Your task to perform on an android device: What's the weather going to be this weekend? Image 0: 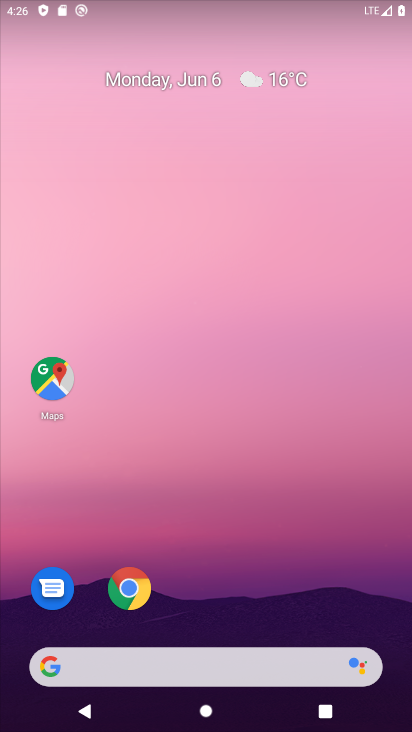
Step 0: click (259, 165)
Your task to perform on an android device: What's the weather going to be this weekend? Image 1: 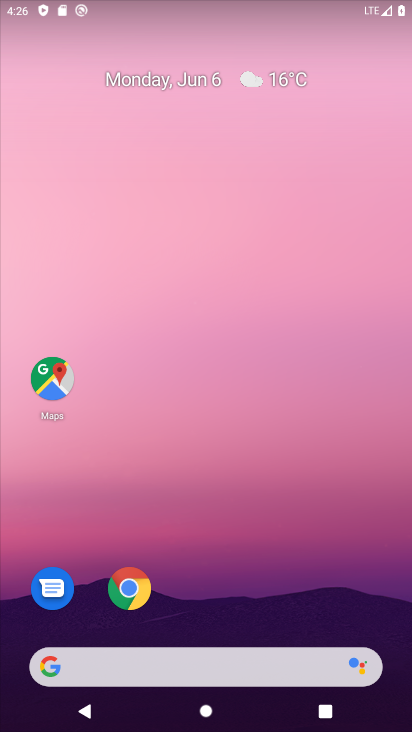
Step 1: drag from (239, 675) to (201, 132)
Your task to perform on an android device: What's the weather going to be this weekend? Image 2: 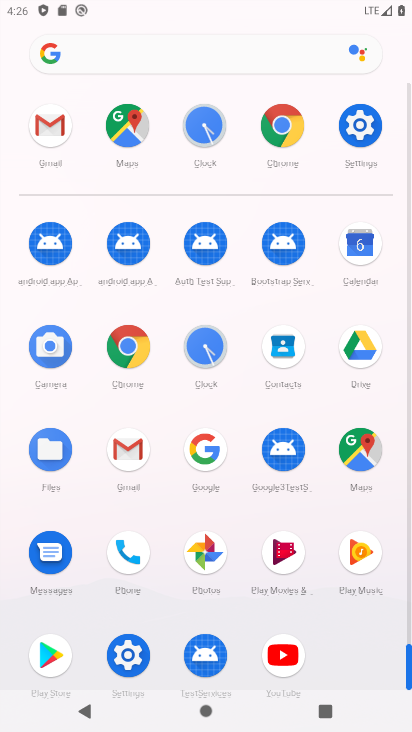
Step 2: press back button
Your task to perform on an android device: What's the weather going to be this weekend? Image 3: 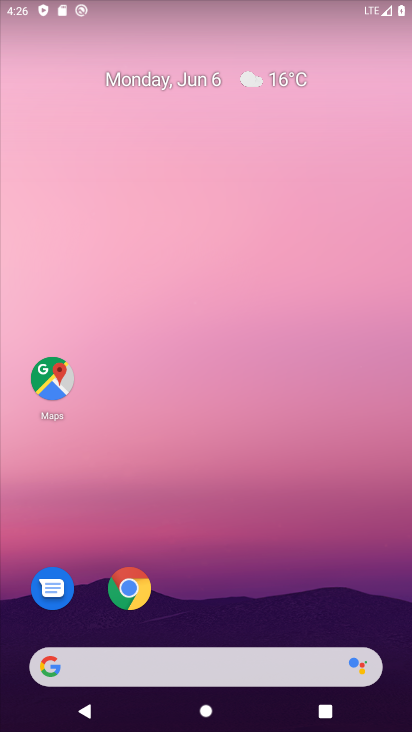
Step 3: drag from (133, 299) to (390, 489)
Your task to perform on an android device: What's the weather going to be this weekend? Image 4: 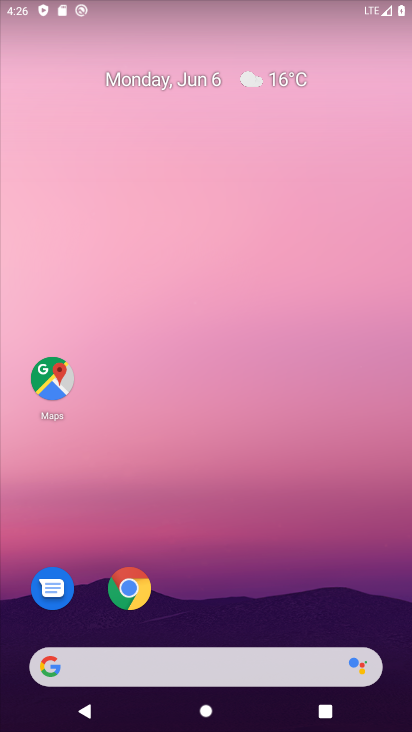
Step 4: drag from (163, 255) to (358, 500)
Your task to perform on an android device: What's the weather going to be this weekend? Image 5: 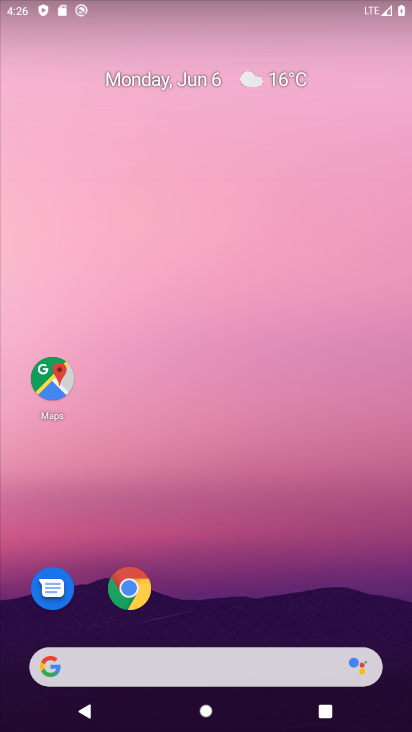
Step 5: drag from (11, 167) to (390, 450)
Your task to perform on an android device: What's the weather going to be this weekend? Image 6: 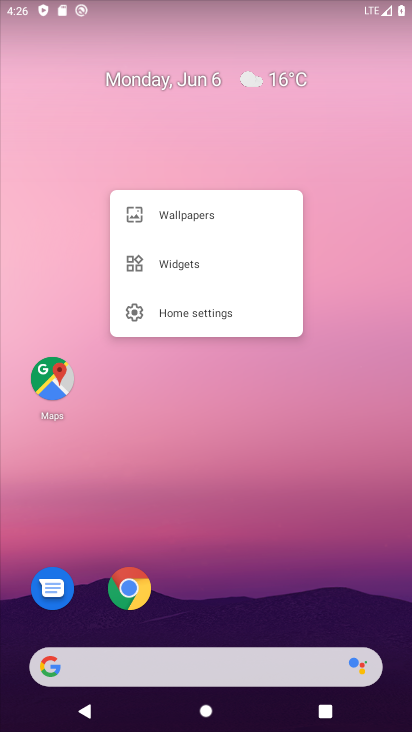
Step 6: drag from (14, 274) to (395, 441)
Your task to perform on an android device: What's the weather going to be this weekend? Image 7: 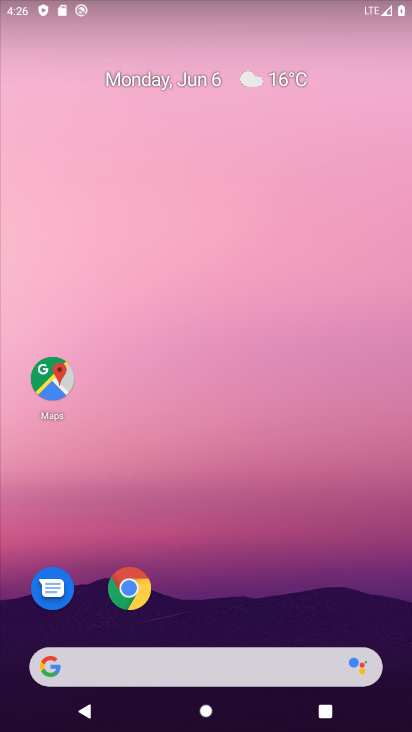
Step 7: drag from (136, 341) to (368, 567)
Your task to perform on an android device: What's the weather going to be this weekend? Image 8: 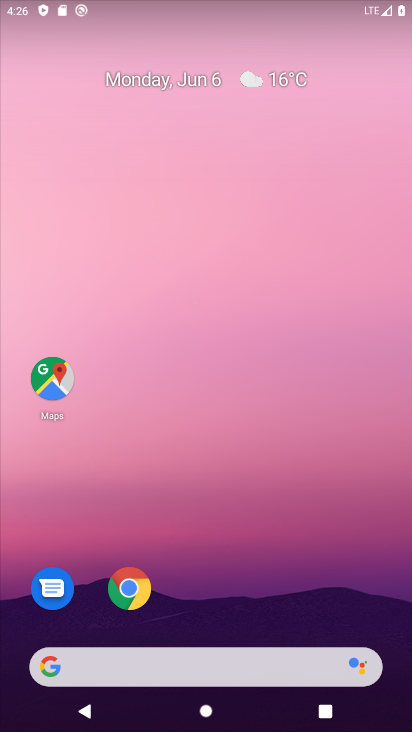
Step 8: drag from (32, 283) to (405, 566)
Your task to perform on an android device: What's the weather going to be this weekend? Image 9: 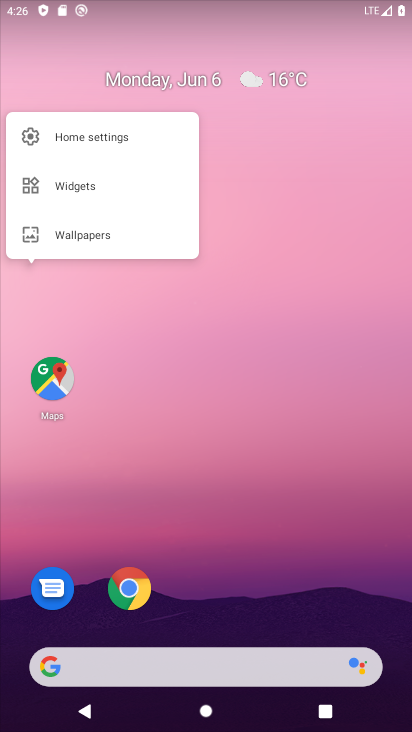
Step 9: drag from (54, 211) to (411, 405)
Your task to perform on an android device: What's the weather going to be this weekend? Image 10: 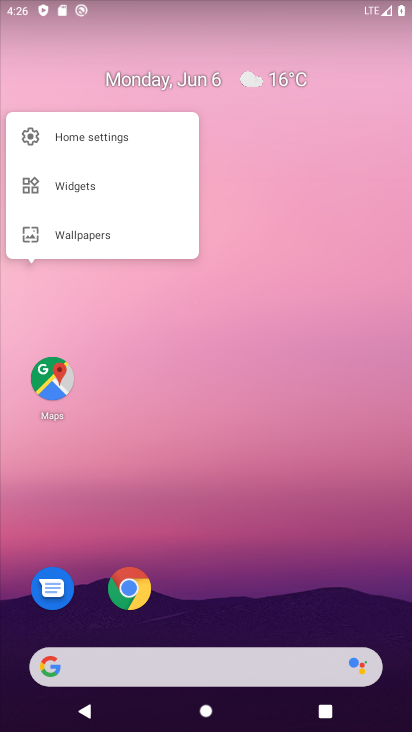
Step 10: click (296, 360)
Your task to perform on an android device: What's the weather going to be this weekend? Image 11: 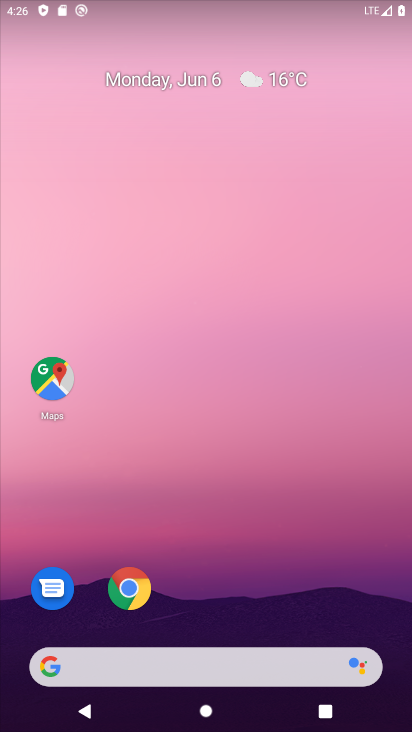
Step 11: drag from (202, 309) to (233, 339)
Your task to perform on an android device: What's the weather going to be this weekend? Image 12: 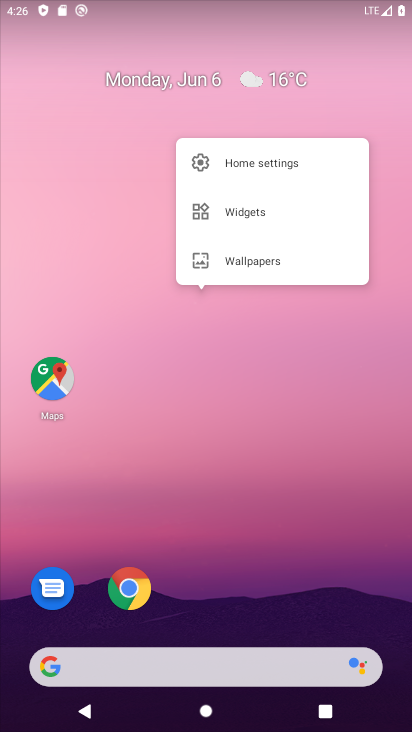
Step 12: drag from (63, 183) to (412, 381)
Your task to perform on an android device: What's the weather going to be this weekend? Image 13: 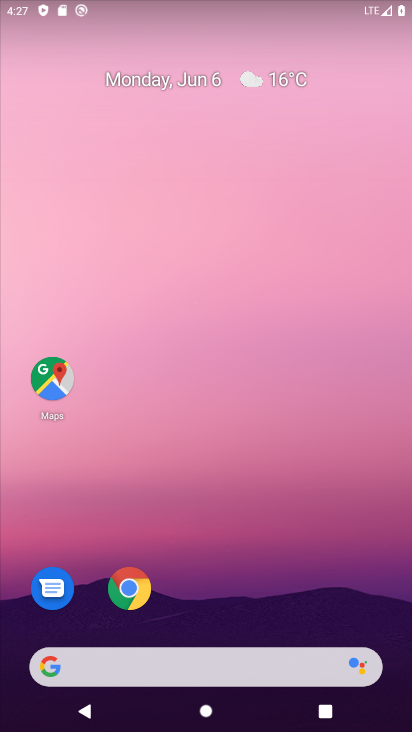
Step 13: drag from (194, 182) to (409, 440)
Your task to perform on an android device: What's the weather going to be this weekend? Image 14: 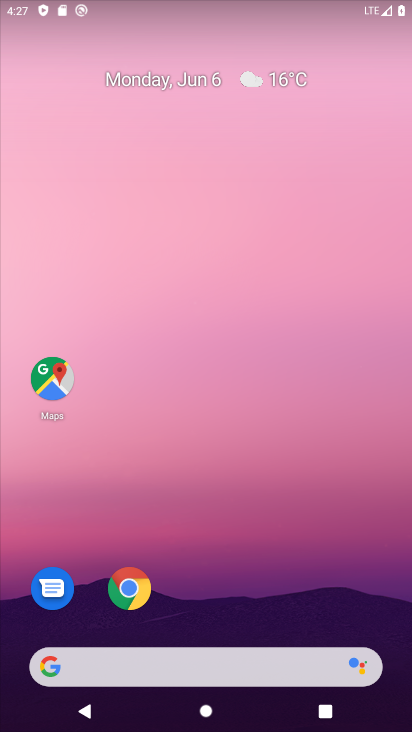
Step 14: drag from (147, 127) to (366, 408)
Your task to perform on an android device: What's the weather going to be this weekend? Image 15: 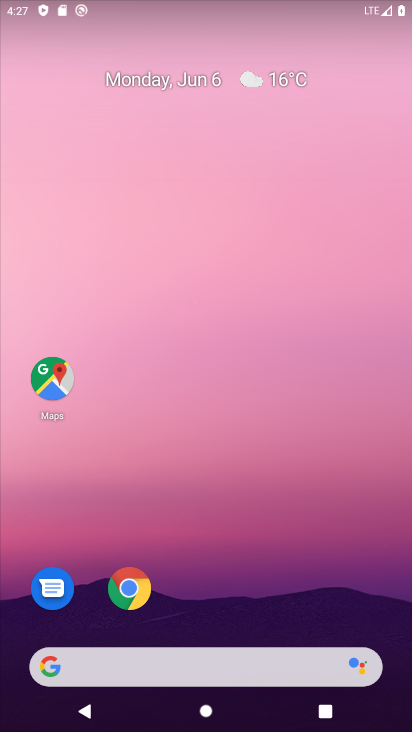
Step 15: click (407, 468)
Your task to perform on an android device: What's the weather going to be this weekend? Image 16: 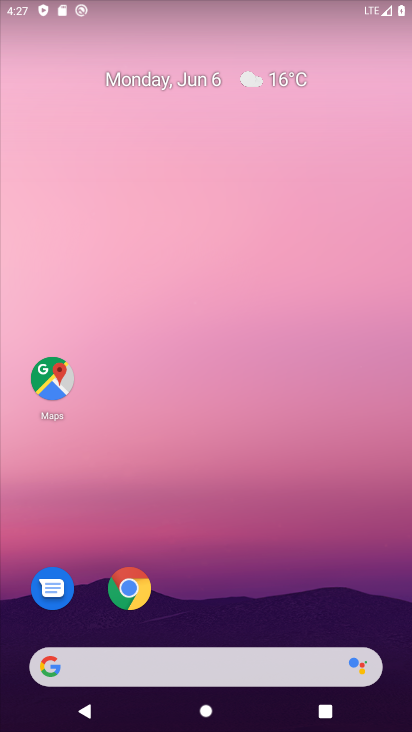
Step 16: drag from (171, 120) to (410, 442)
Your task to perform on an android device: What's the weather going to be this weekend? Image 17: 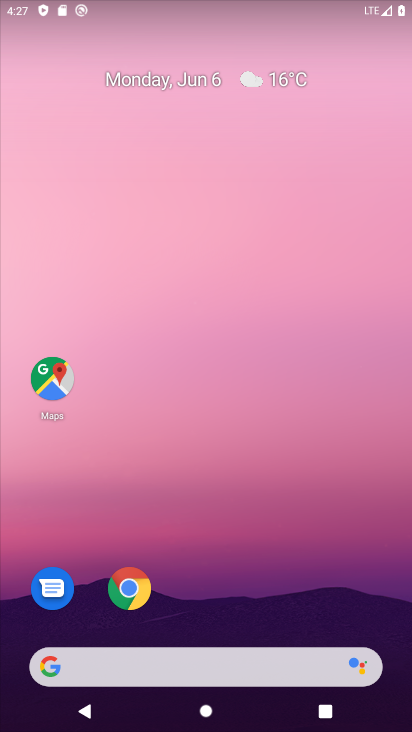
Step 17: drag from (13, 290) to (377, 335)
Your task to perform on an android device: What's the weather going to be this weekend? Image 18: 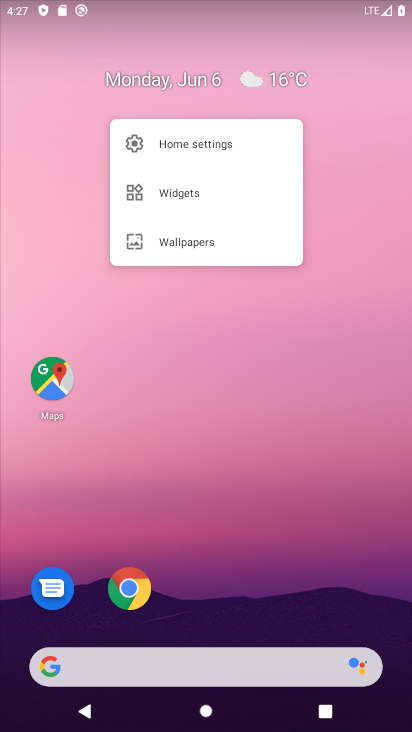
Step 18: drag from (220, 444) to (393, 628)
Your task to perform on an android device: What's the weather going to be this weekend? Image 19: 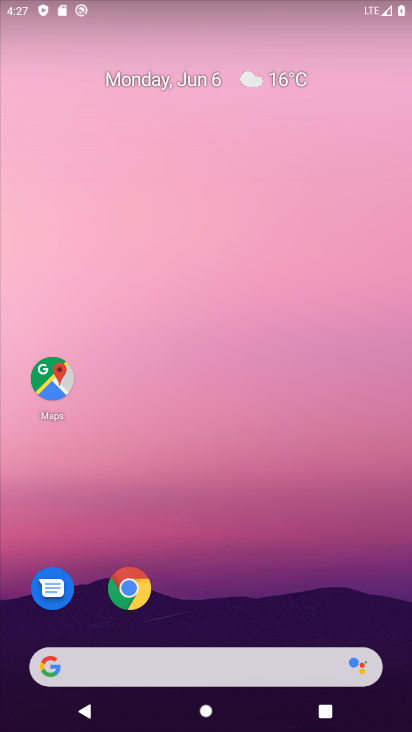
Step 19: drag from (142, 295) to (403, 532)
Your task to perform on an android device: What's the weather going to be this weekend? Image 20: 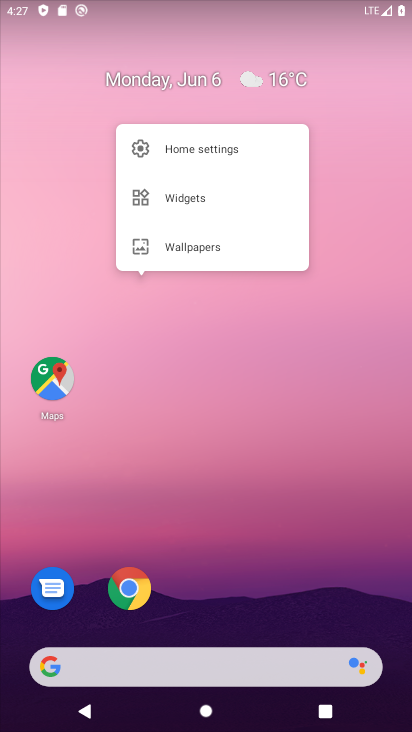
Step 20: click (249, 71)
Your task to perform on an android device: What's the weather going to be this weekend? Image 21: 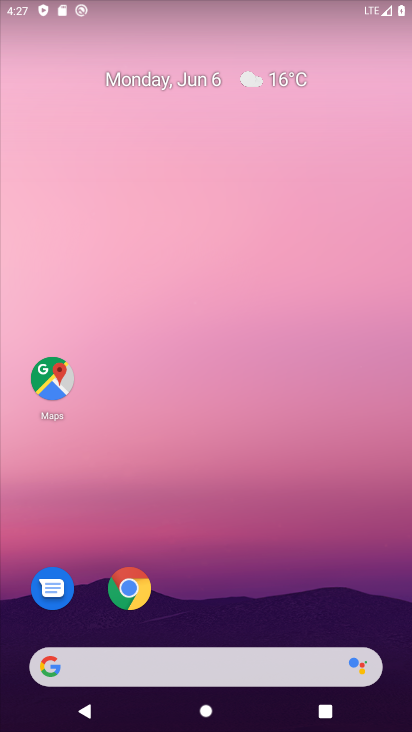
Step 21: click (244, 78)
Your task to perform on an android device: What's the weather going to be this weekend? Image 22: 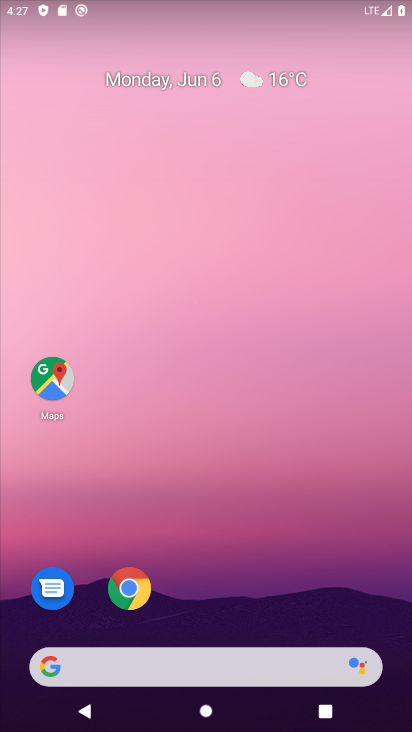
Step 22: click (243, 81)
Your task to perform on an android device: What's the weather going to be this weekend? Image 23: 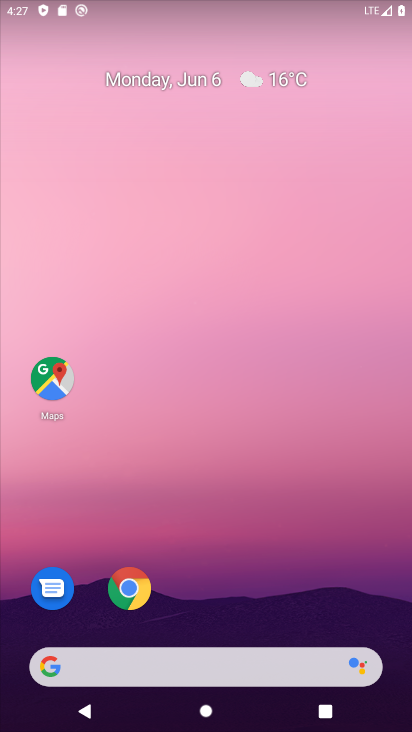
Step 23: click (243, 81)
Your task to perform on an android device: What's the weather going to be this weekend? Image 24: 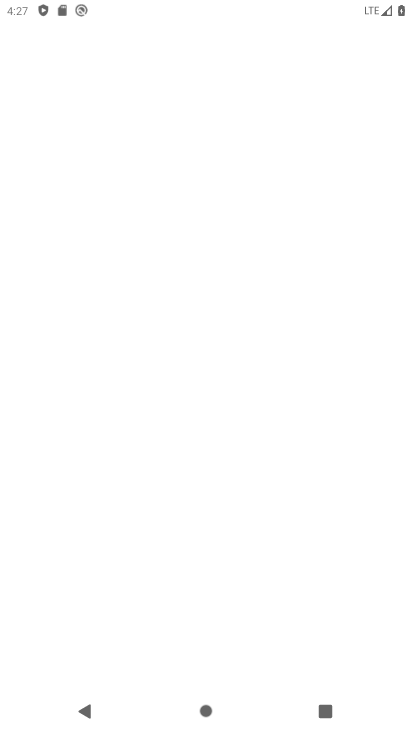
Step 24: click (244, 67)
Your task to perform on an android device: What's the weather going to be this weekend? Image 25: 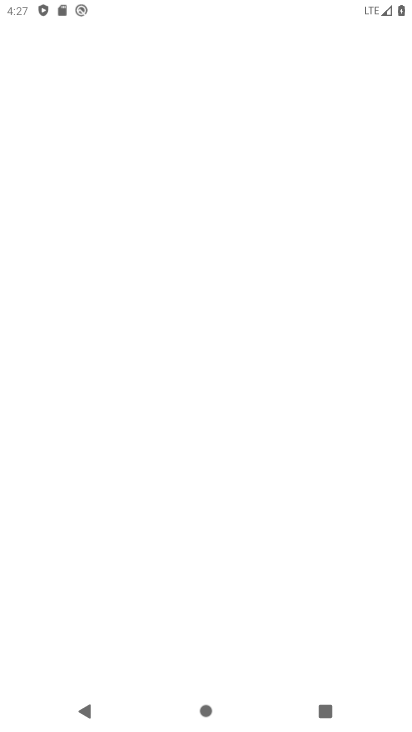
Step 25: click (241, 68)
Your task to perform on an android device: What's the weather going to be this weekend? Image 26: 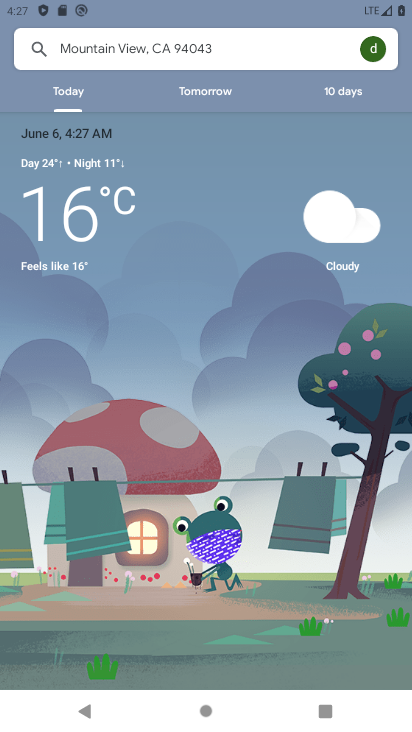
Step 26: task complete